Your task to perform on an android device: make emails show in primary in the gmail app Image 0: 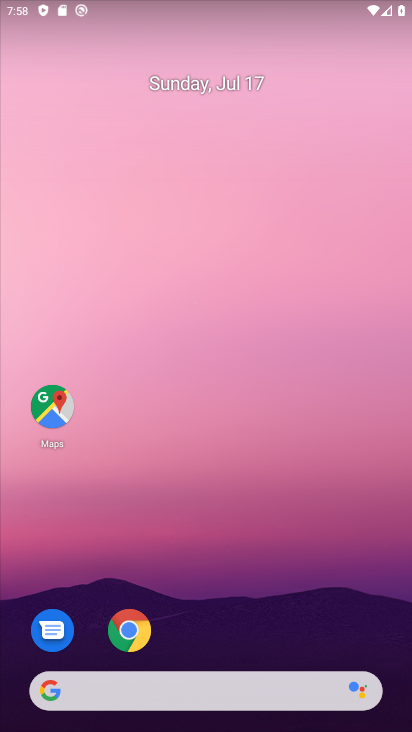
Step 0: drag from (303, 636) to (191, 189)
Your task to perform on an android device: make emails show in primary in the gmail app Image 1: 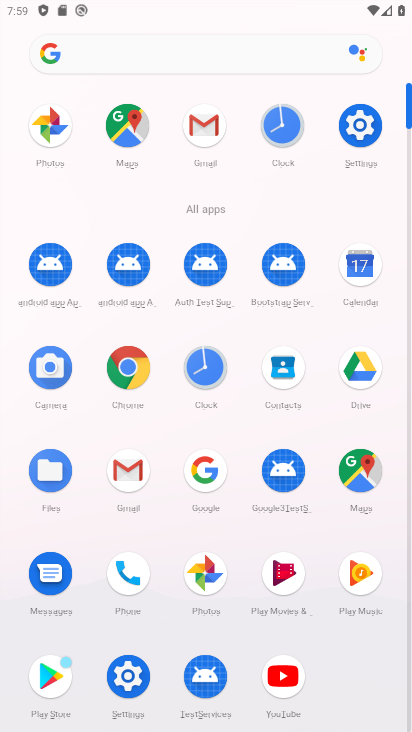
Step 1: click (196, 149)
Your task to perform on an android device: make emails show in primary in the gmail app Image 2: 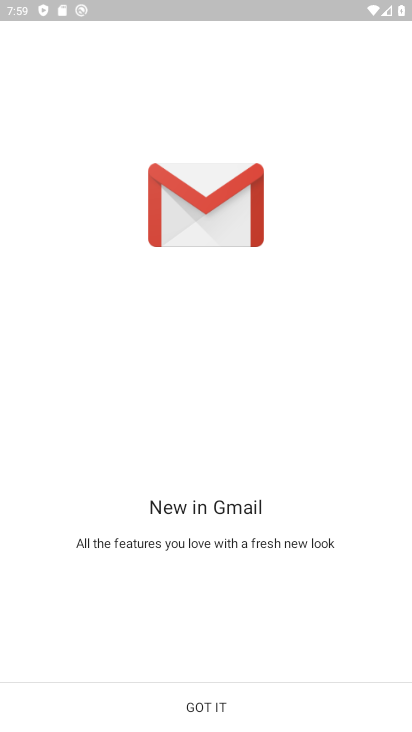
Step 2: click (208, 708)
Your task to perform on an android device: make emails show in primary in the gmail app Image 3: 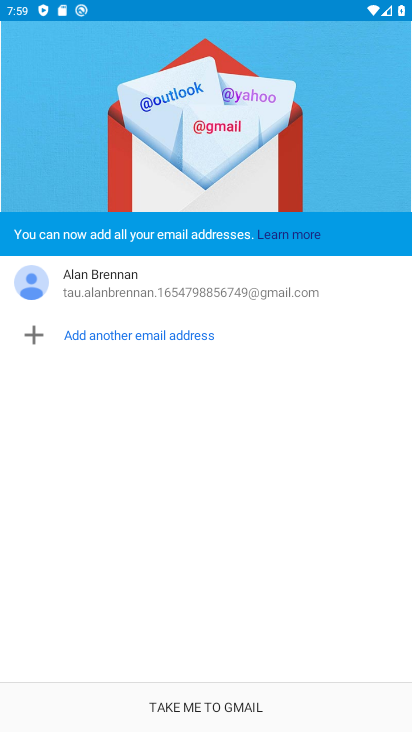
Step 3: click (208, 708)
Your task to perform on an android device: make emails show in primary in the gmail app Image 4: 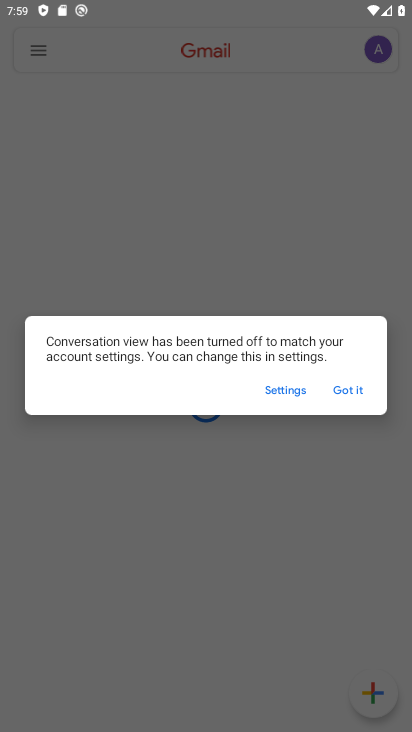
Step 4: click (339, 398)
Your task to perform on an android device: make emails show in primary in the gmail app Image 5: 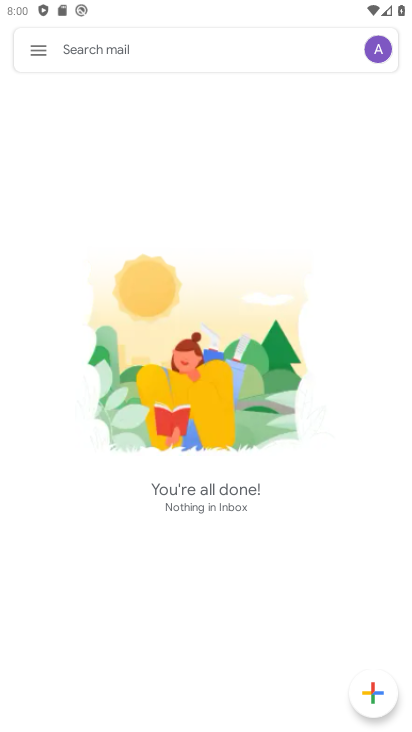
Step 5: click (36, 57)
Your task to perform on an android device: make emails show in primary in the gmail app Image 6: 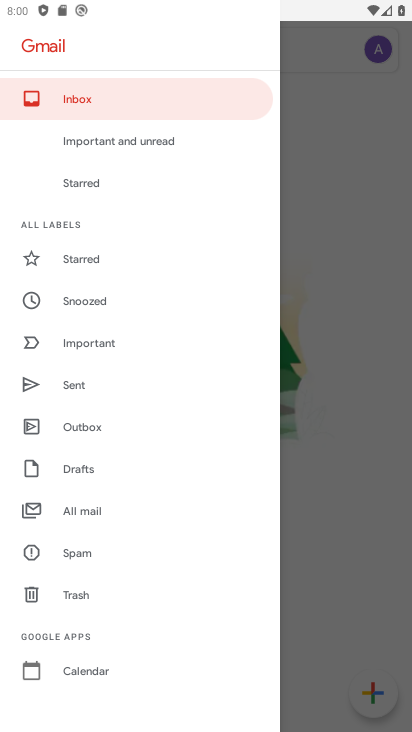
Step 6: drag from (96, 641) to (120, 407)
Your task to perform on an android device: make emails show in primary in the gmail app Image 7: 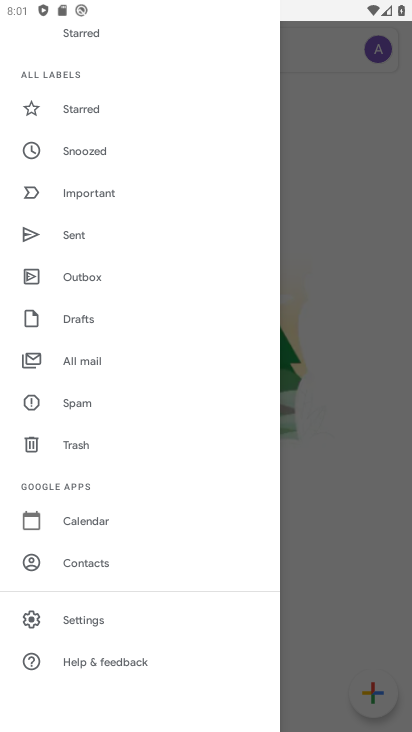
Step 7: click (76, 608)
Your task to perform on an android device: make emails show in primary in the gmail app Image 8: 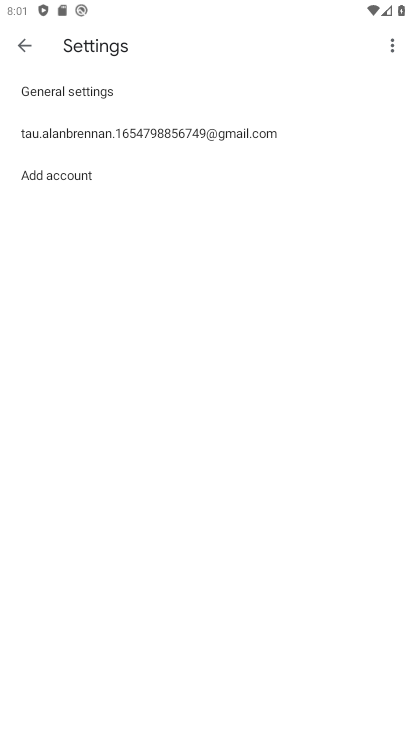
Step 8: click (90, 121)
Your task to perform on an android device: make emails show in primary in the gmail app Image 9: 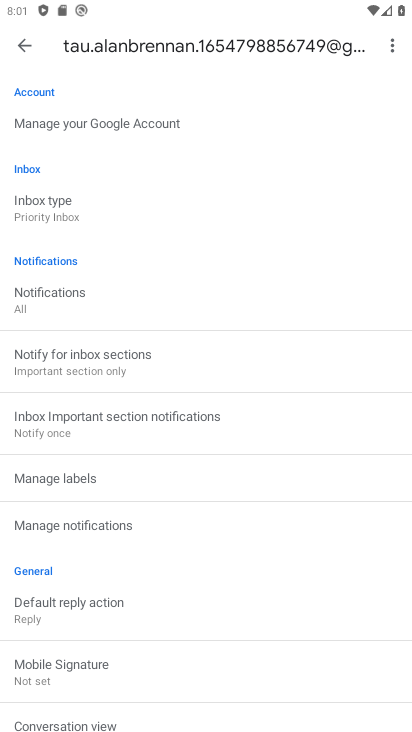
Step 9: click (50, 211)
Your task to perform on an android device: make emails show in primary in the gmail app Image 10: 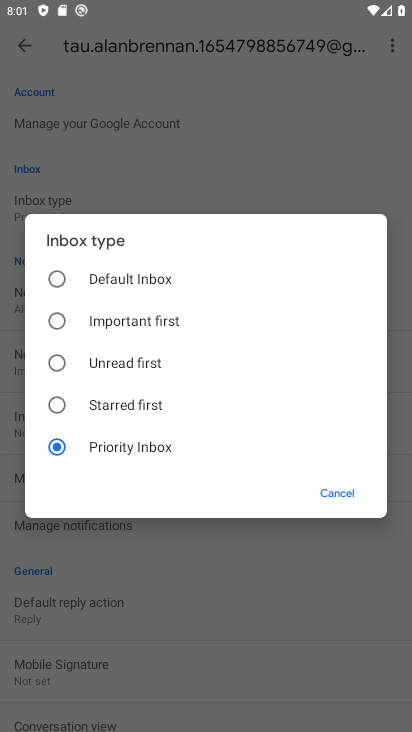
Step 10: click (106, 435)
Your task to perform on an android device: make emails show in primary in the gmail app Image 11: 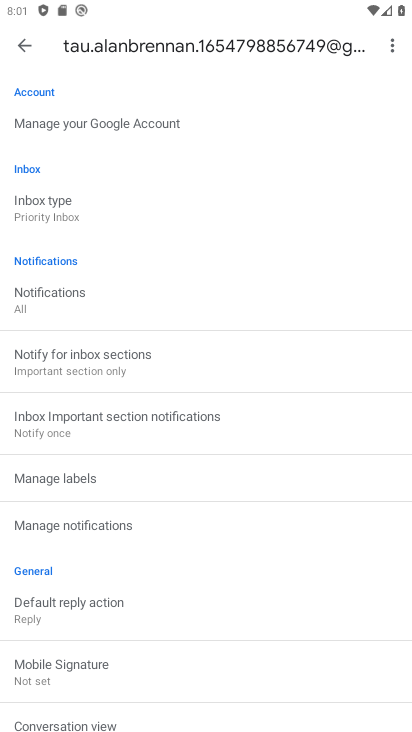
Step 11: task complete